Your task to perform on an android device: change the clock display to show seconds Image 0: 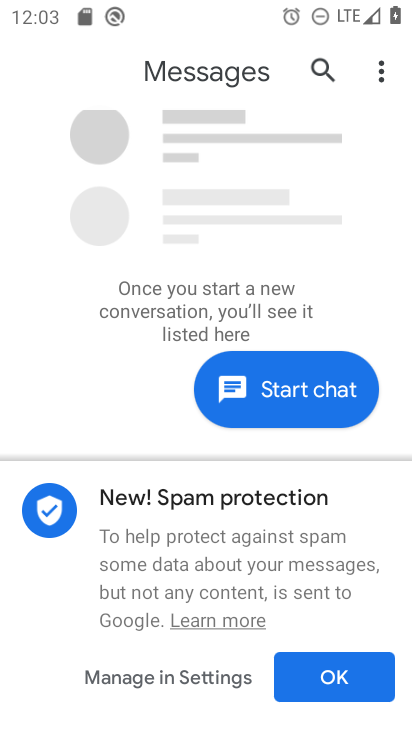
Step 0: press home button
Your task to perform on an android device: change the clock display to show seconds Image 1: 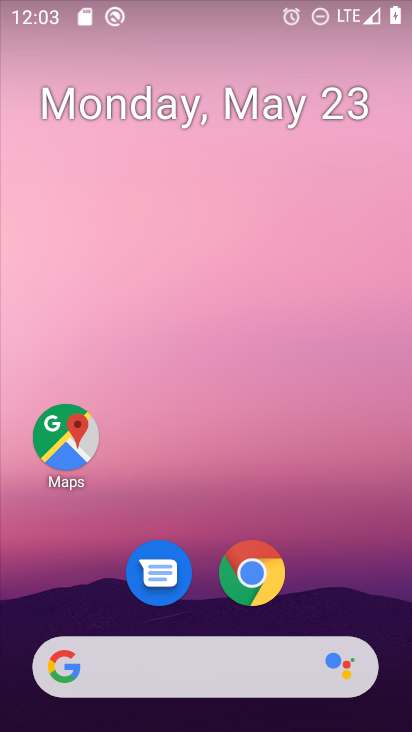
Step 1: drag from (297, 541) to (299, 31)
Your task to perform on an android device: change the clock display to show seconds Image 2: 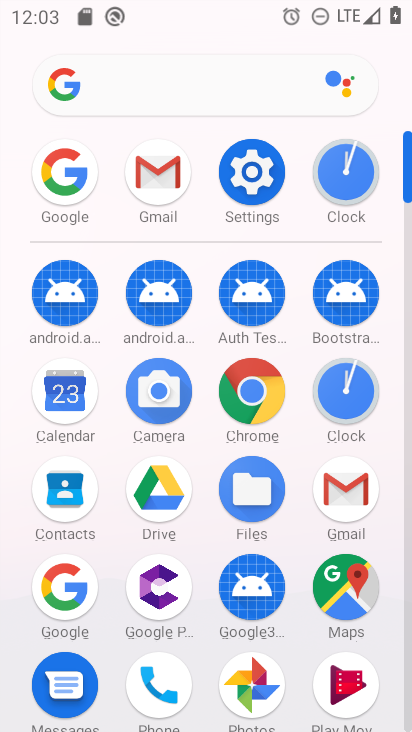
Step 2: click (336, 402)
Your task to perform on an android device: change the clock display to show seconds Image 3: 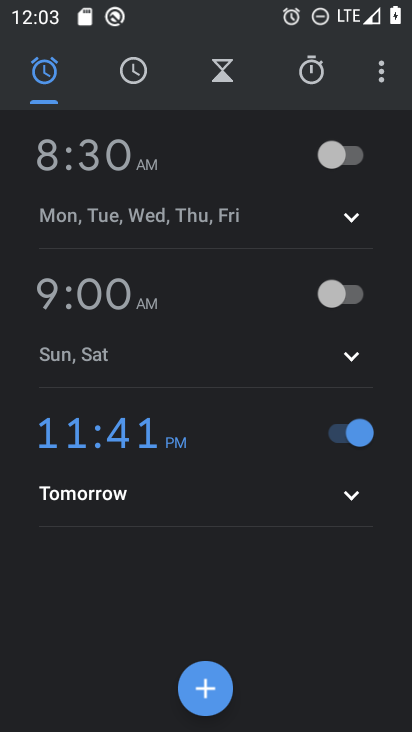
Step 3: click (378, 77)
Your task to perform on an android device: change the clock display to show seconds Image 4: 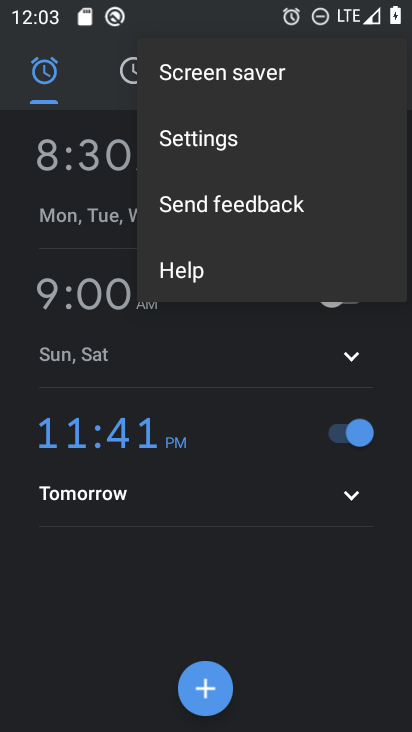
Step 4: click (223, 144)
Your task to perform on an android device: change the clock display to show seconds Image 5: 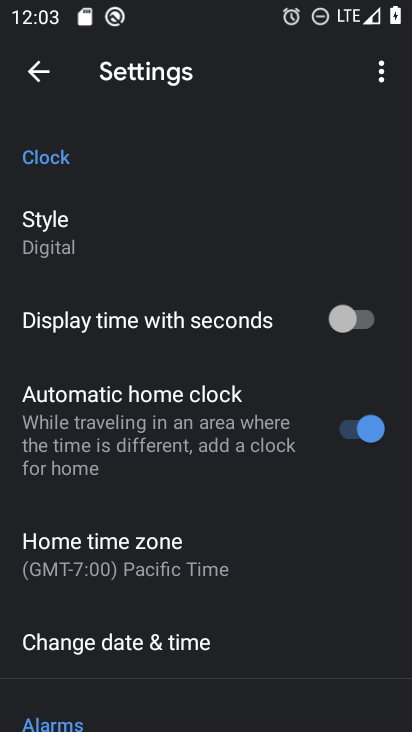
Step 5: click (339, 314)
Your task to perform on an android device: change the clock display to show seconds Image 6: 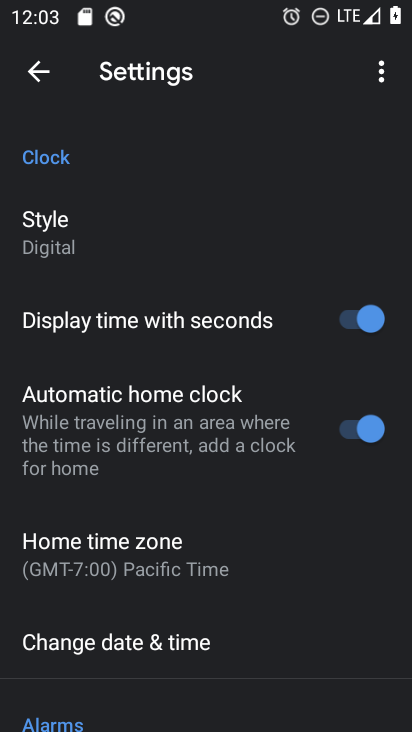
Step 6: task complete